Your task to perform on an android device: turn off priority inbox in the gmail app Image 0: 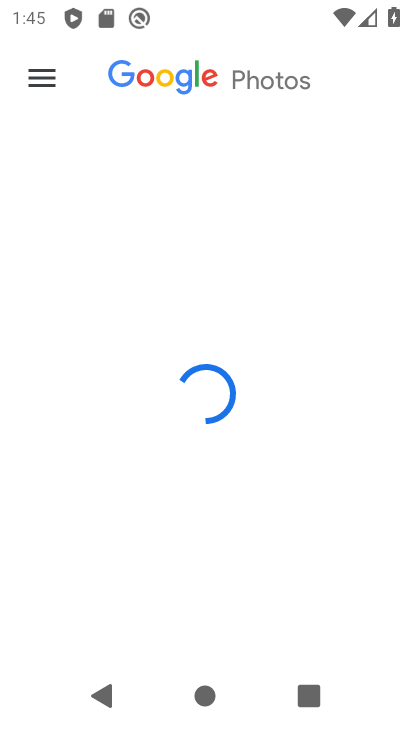
Step 0: press home button
Your task to perform on an android device: turn off priority inbox in the gmail app Image 1: 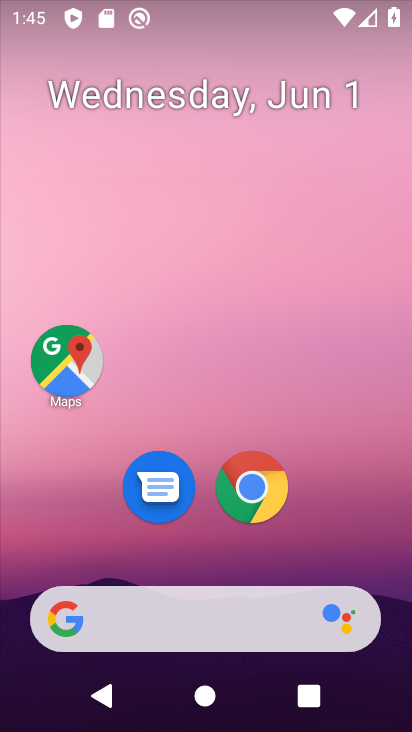
Step 1: drag from (380, 538) to (392, 282)
Your task to perform on an android device: turn off priority inbox in the gmail app Image 2: 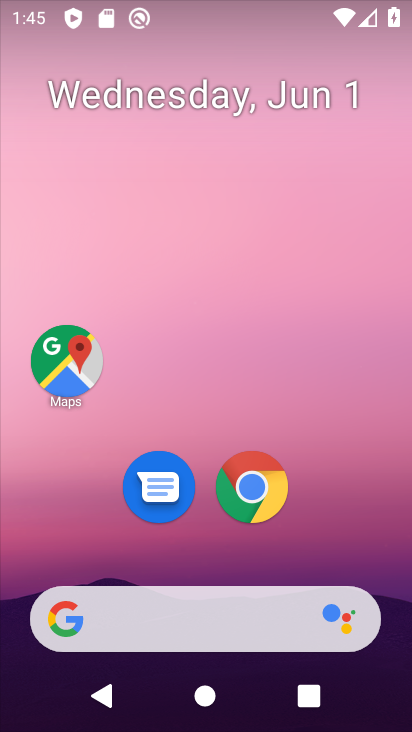
Step 2: drag from (385, 531) to (377, 260)
Your task to perform on an android device: turn off priority inbox in the gmail app Image 3: 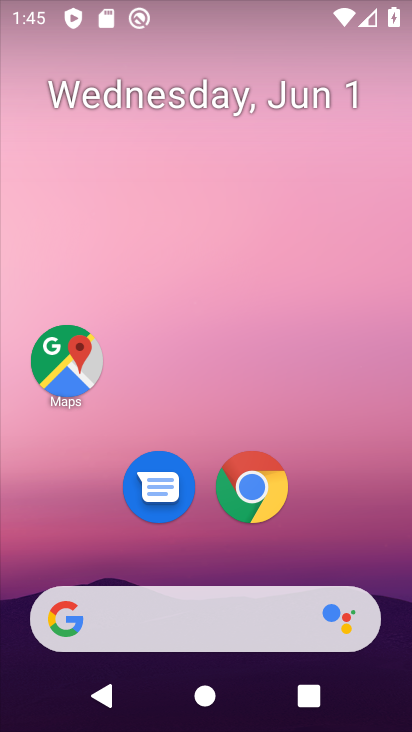
Step 3: drag from (364, 529) to (356, 168)
Your task to perform on an android device: turn off priority inbox in the gmail app Image 4: 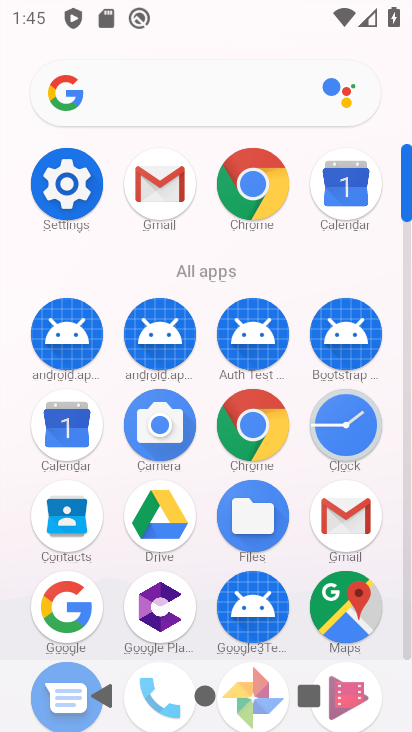
Step 4: click (363, 524)
Your task to perform on an android device: turn off priority inbox in the gmail app Image 5: 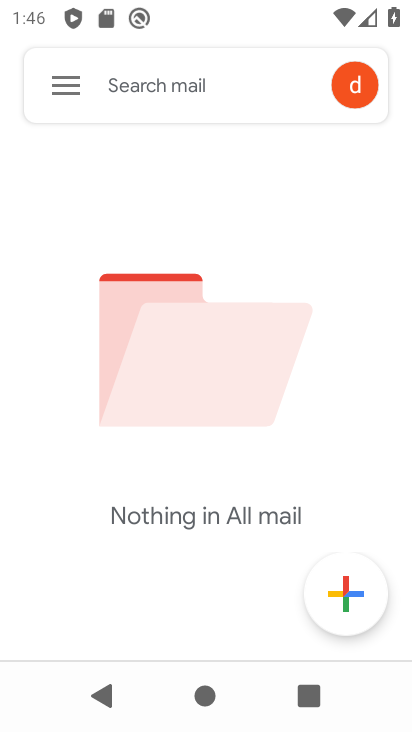
Step 5: click (80, 93)
Your task to perform on an android device: turn off priority inbox in the gmail app Image 6: 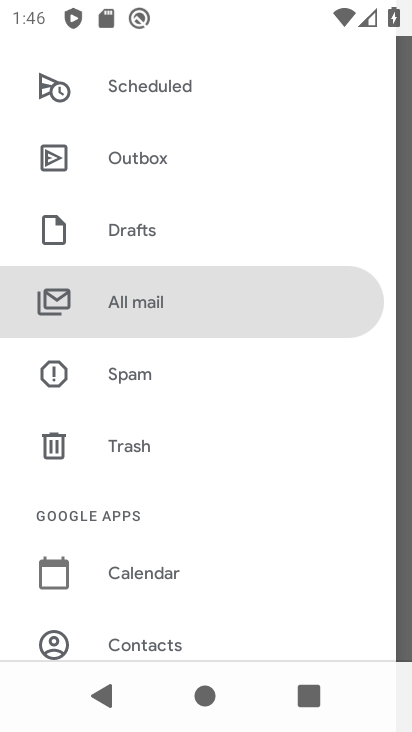
Step 6: drag from (225, 491) to (238, 308)
Your task to perform on an android device: turn off priority inbox in the gmail app Image 7: 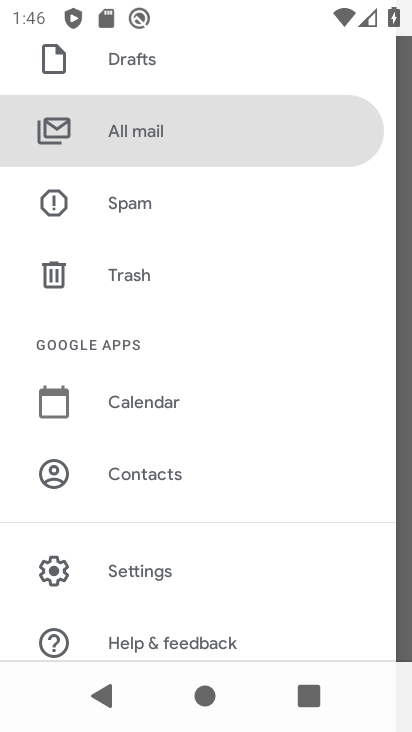
Step 7: drag from (263, 488) to (270, 360)
Your task to perform on an android device: turn off priority inbox in the gmail app Image 8: 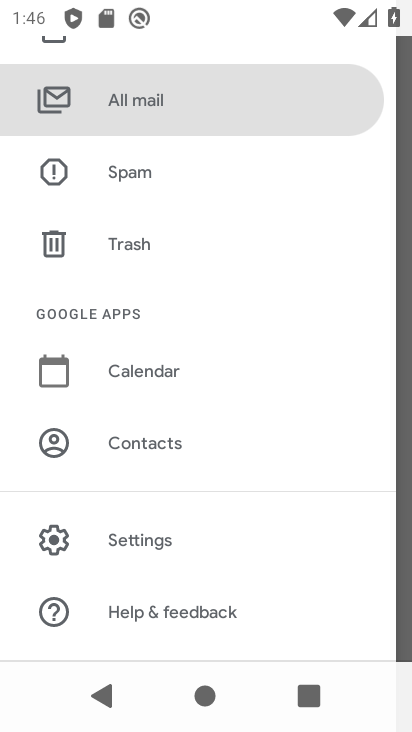
Step 8: click (168, 546)
Your task to perform on an android device: turn off priority inbox in the gmail app Image 9: 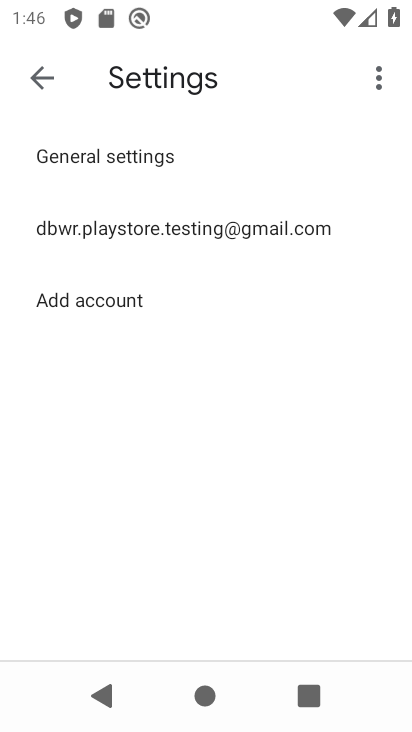
Step 9: click (190, 247)
Your task to perform on an android device: turn off priority inbox in the gmail app Image 10: 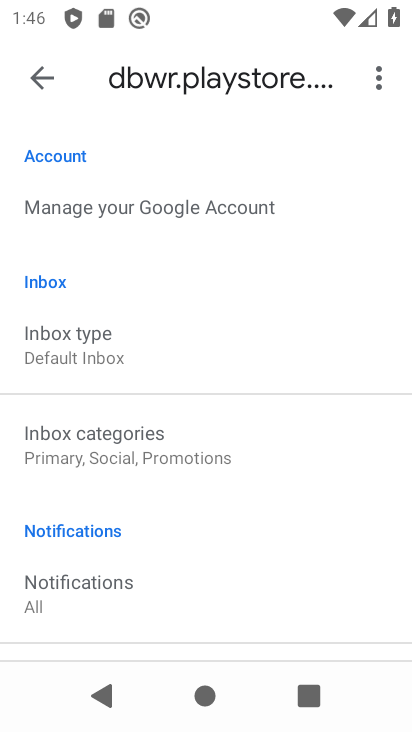
Step 10: task complete